Your task to perform on an android device: Go to Google Image 0: 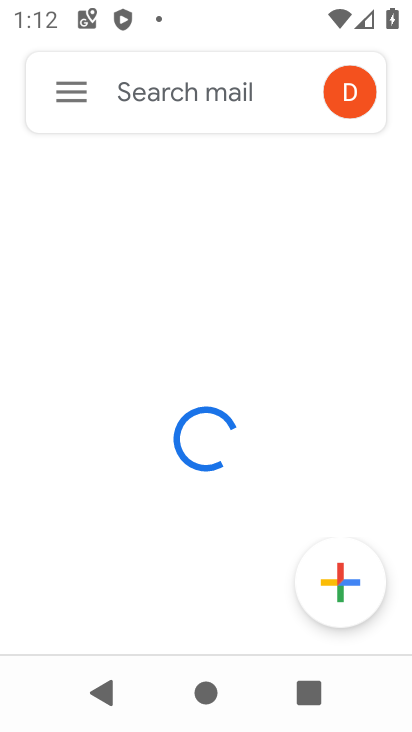
Step 0: press home button
Your task to perform on an android device: Go to Google Image 1: 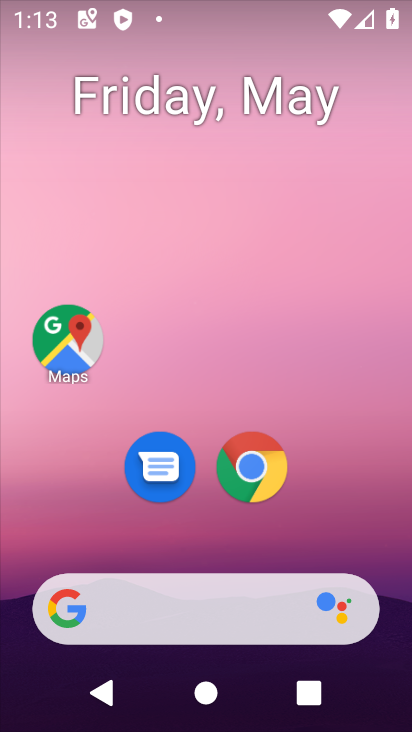
Step 1: drag from (314, 535) to (266, 68)
Your task to perform on an android device: Go to Google Image 2: 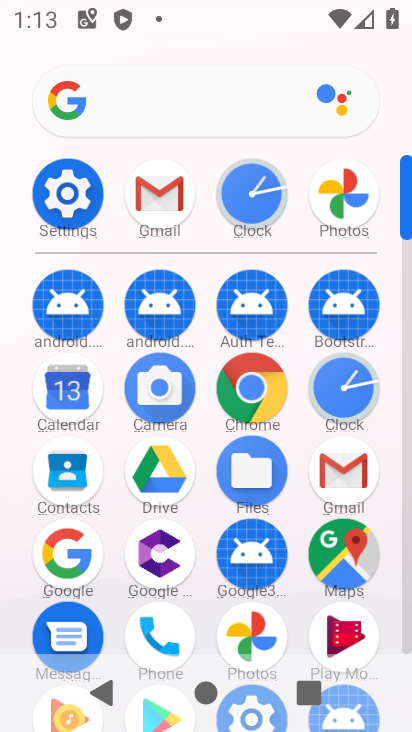
Step 2: click (62, 550)
Your task to perform on an android device: Go to Google Image 3: 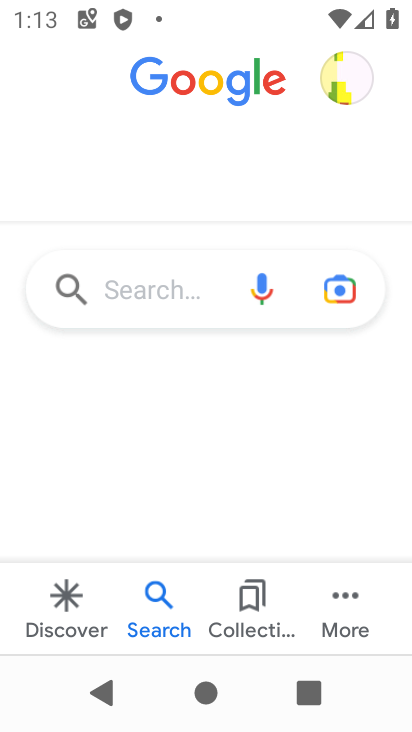
Step 3: task complete